Your task to perform on an android device: Open calendar and show me the fourth week of next month Image 0: 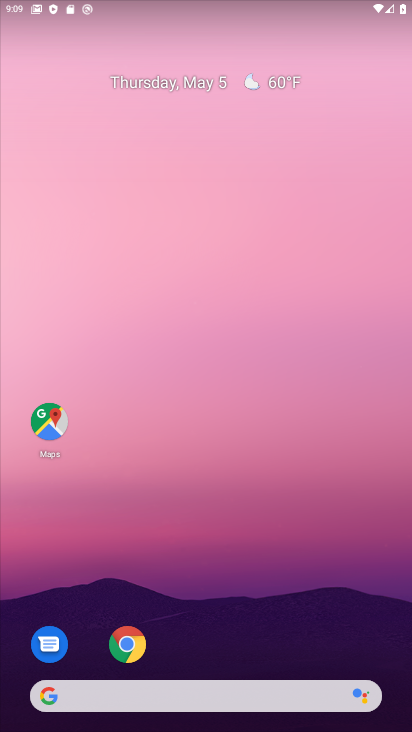
Step 0: drag from (349, 650) to (346, 131)
Your task to perform on an android device: Open calendar and show me the fourth week of next month Image 1: 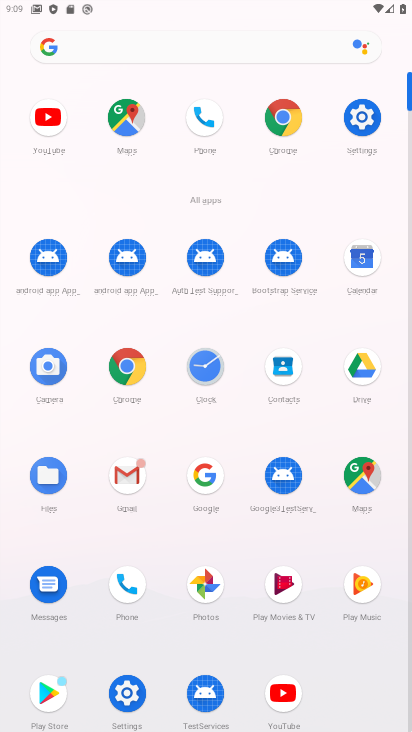
Step 1: click (363, 260)
Your task to perform on an android device: Open calendar and show me the fourth week of next month Image 2: 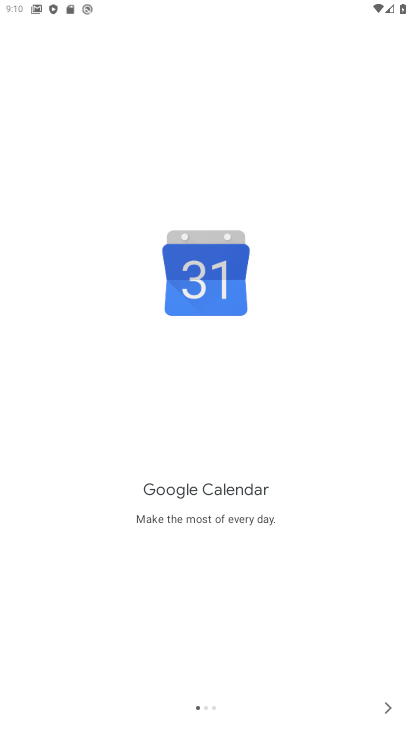
Step 2: click (386, 713)
Your task to perform on an android device: Open calendar and show me the fourth week of next month Image 3: 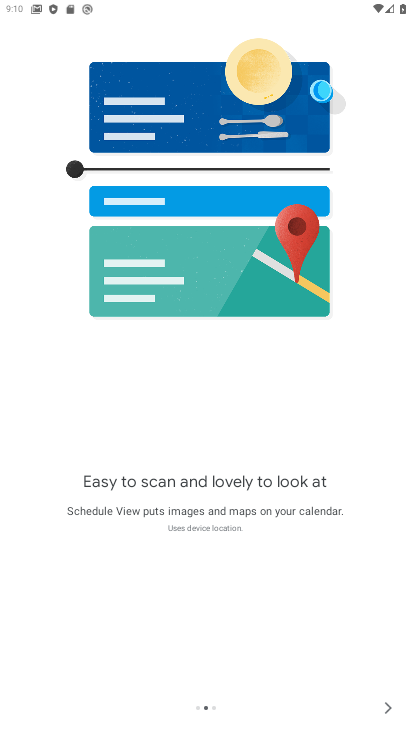
Step 3: click (386, 712)
Your task to perform on an android device: Open calendar and show me the fourth week of next month Image 4: 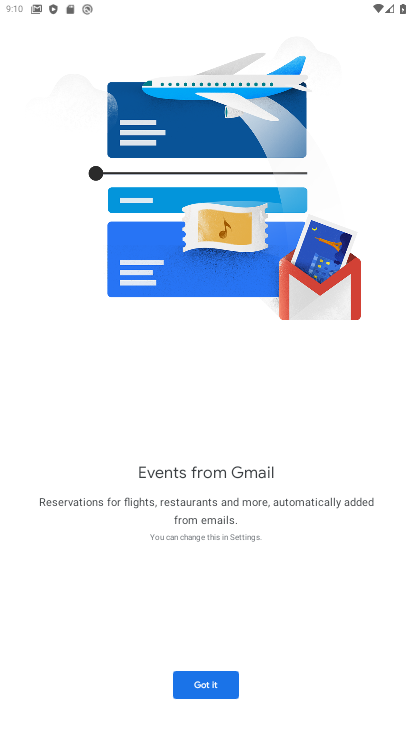
Step 4: click (208, 678)
Your task to perform on an android device: Open calendar and show me the fourth week of next month Image 5: 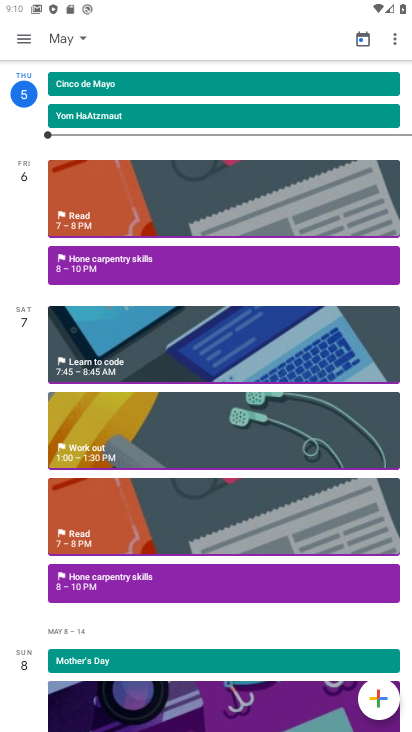
Step 5: click (64, 40)
Your task to perform on an android device: Open calendar and show me the fourth week of next month Image 6: 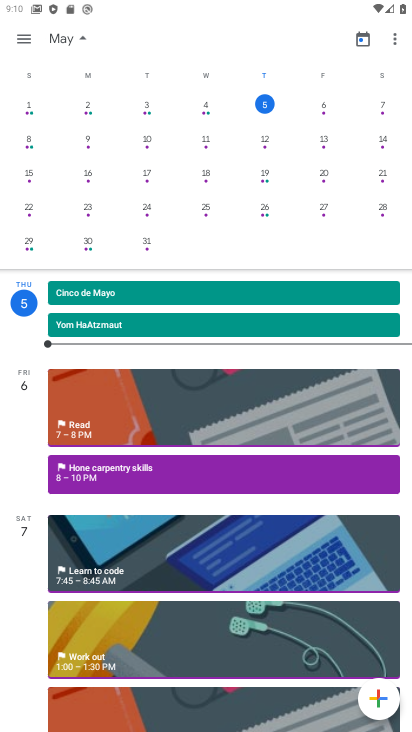
Step 6: drag from (364, 91) to (9, 94)
Your task to perform on an android device: Open calendar and show me the fourth week of next month Image 7: 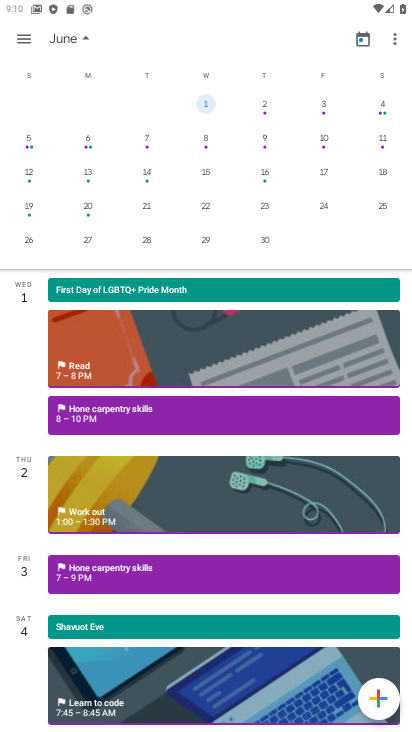
Step 7: click (32, 207)
Your task to perform on an android device: Open calendar and show me the fourth week of next month Image 8: 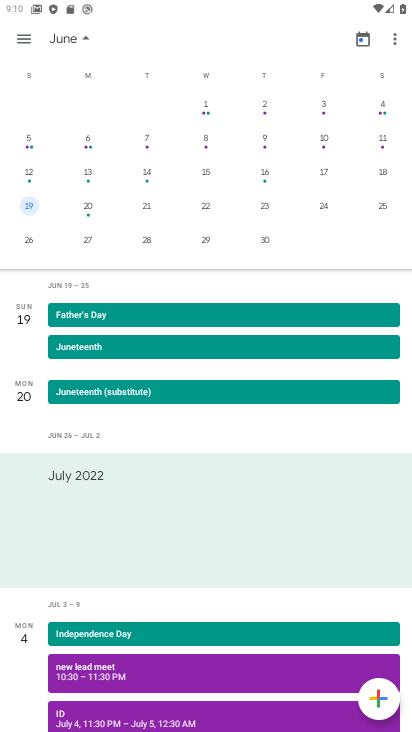
Step 8: task complete